Your task to perform on an android device: Go to Google maps Image 0: 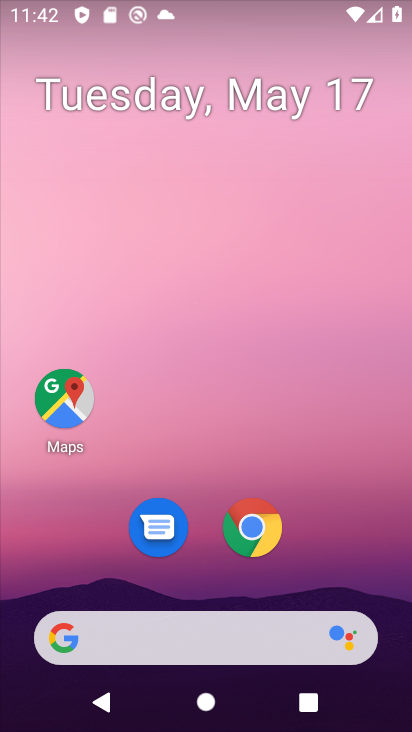
Step 0: click (76, 399)
Your task to perform on an android device: Go to Google maps Image 1: 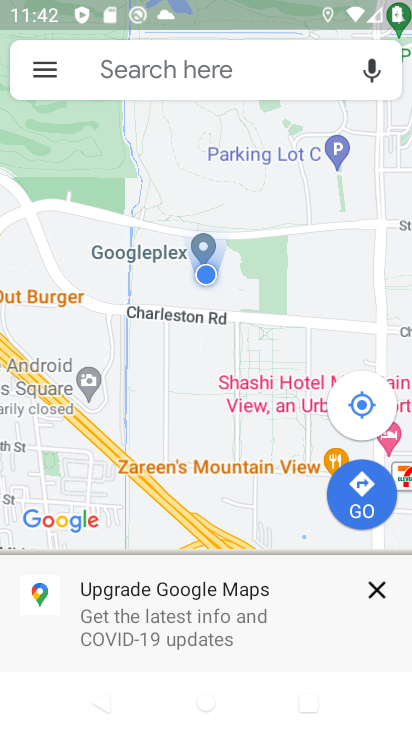
Step 1: task complete